Your task to perform on an android device: Play the last video I watched on Youtube Image 0: 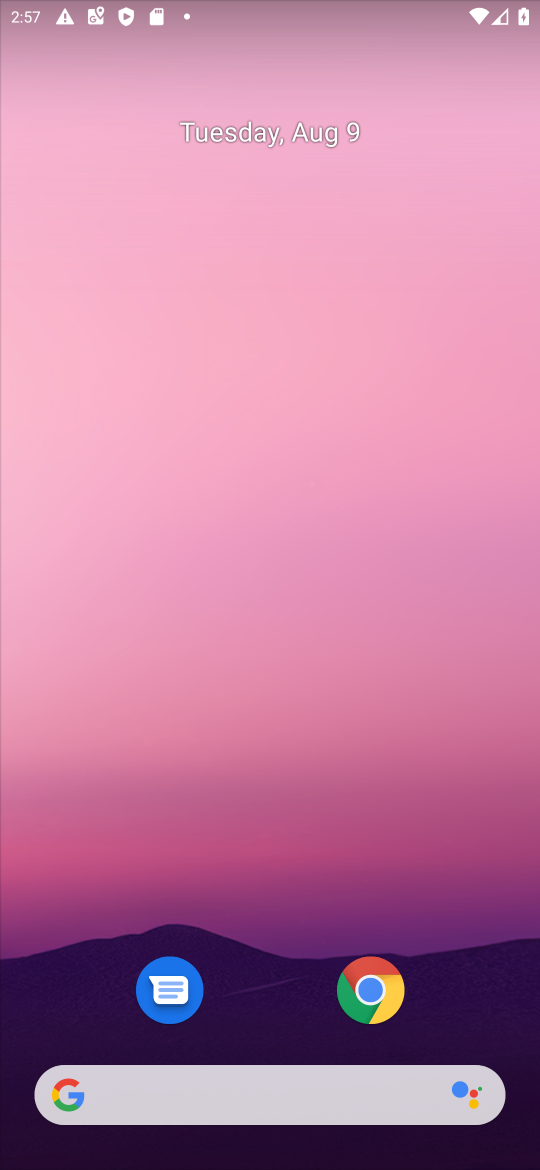
Step 0: drag from (334, 1105) to (350, 135)
Your task to perform on an android device: Play the last video I watched on Youtube Image 1: 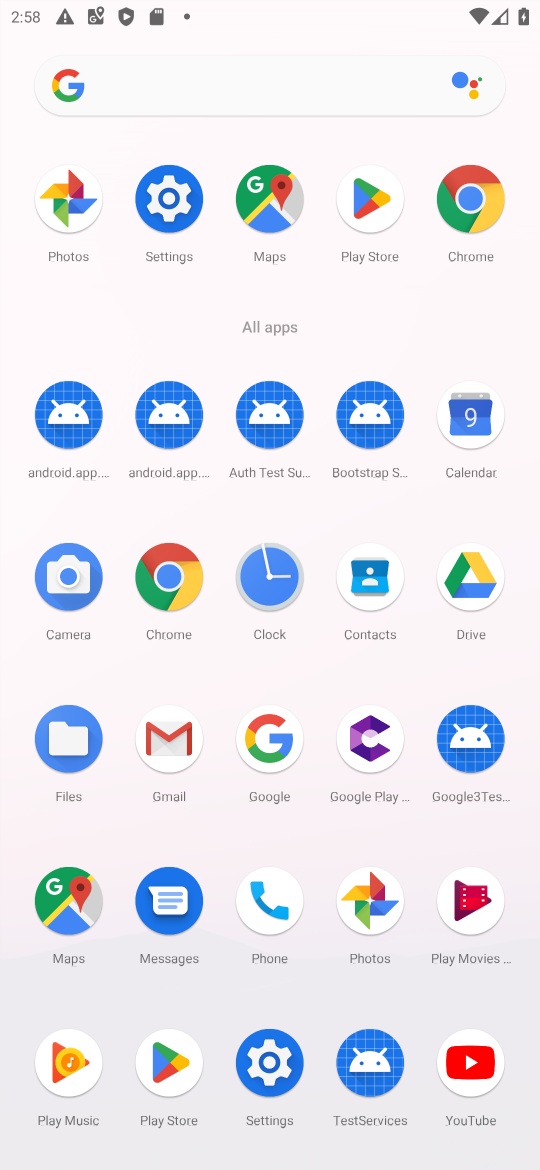
Step 1: click (456, 1079)
Your task to perform on an android device: Play the last video I watched on Youtube Image 2: 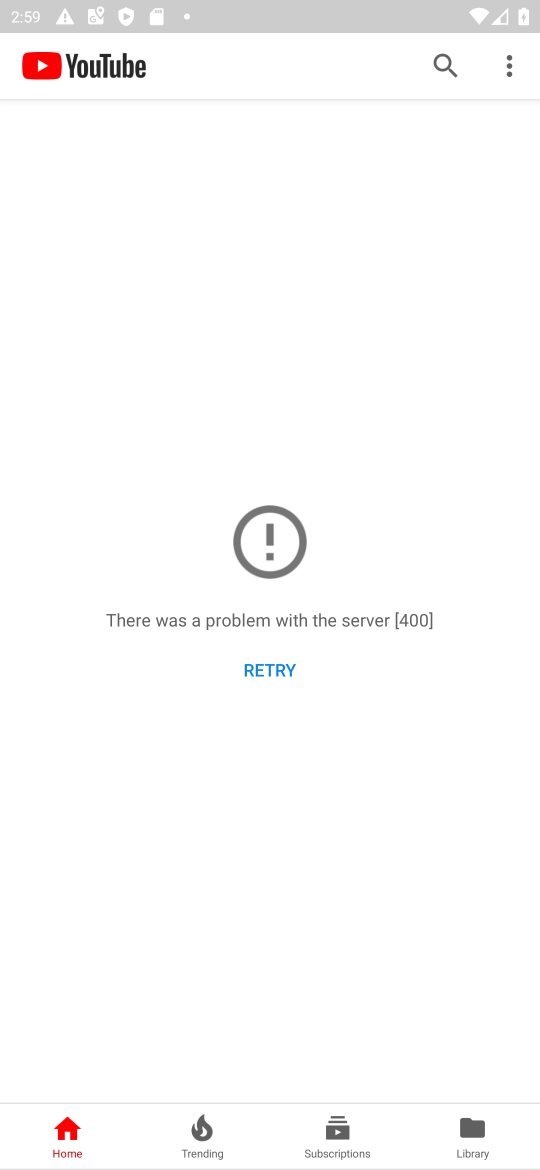
Step 2: click (478, 1129)
Your task to perform on an android device: Play the last video I watched on Youtube Image 3: 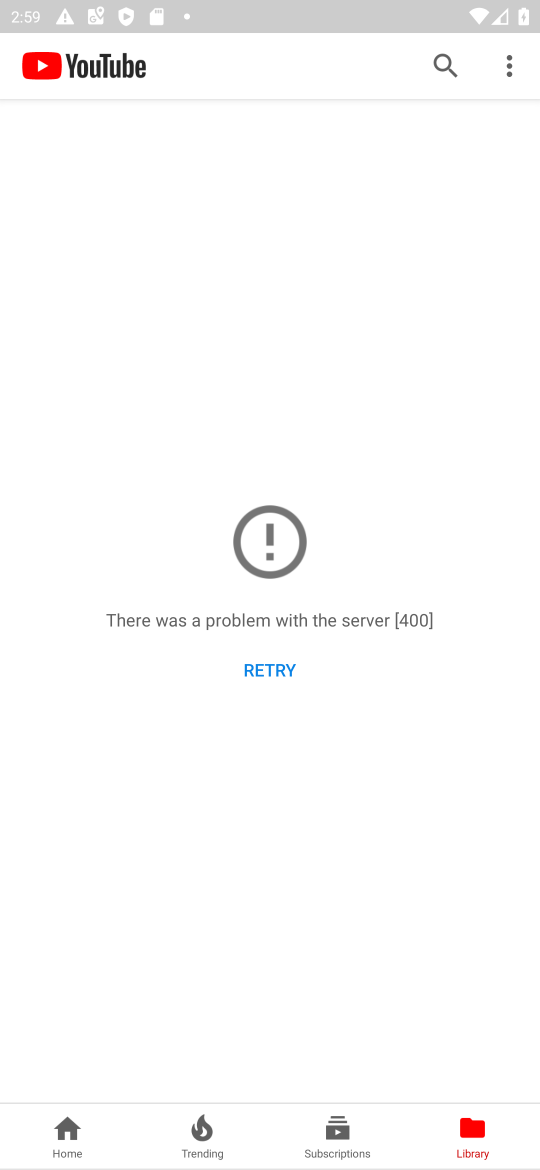
Step 3: task complete